Your task to perform on an android device: Do I have any events this weekend? Image 0: 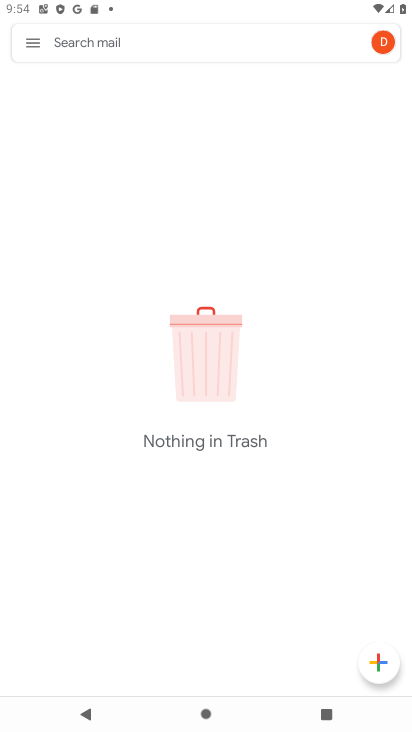
Step 0: press home button
Your task to perform on an android device: Do I have any events this weekend? Image 1: 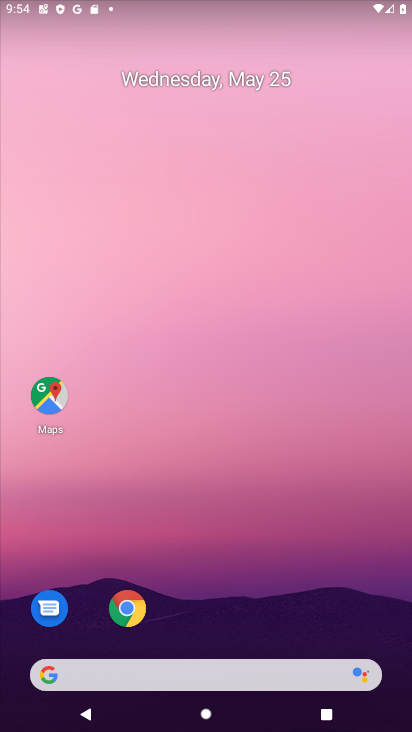
Step 1: drag from (241, 644) to (266, 8)
Your task to perform on an android device: Do I have any events this weekend? Image 2: 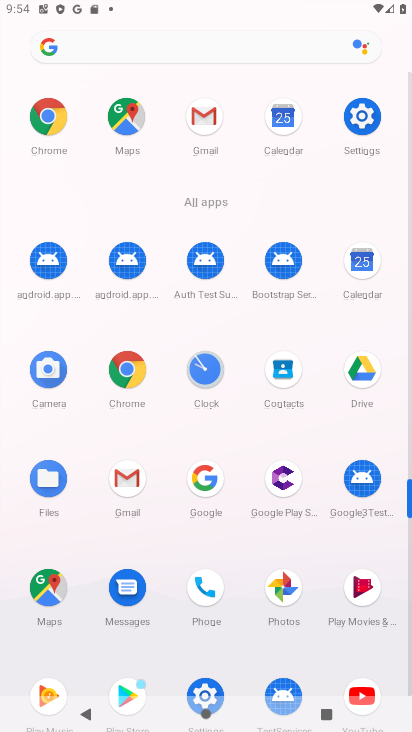
Step 2: click (285, 118)
Your task to perform on an android device: Do I have any events this weekend? Image 3: 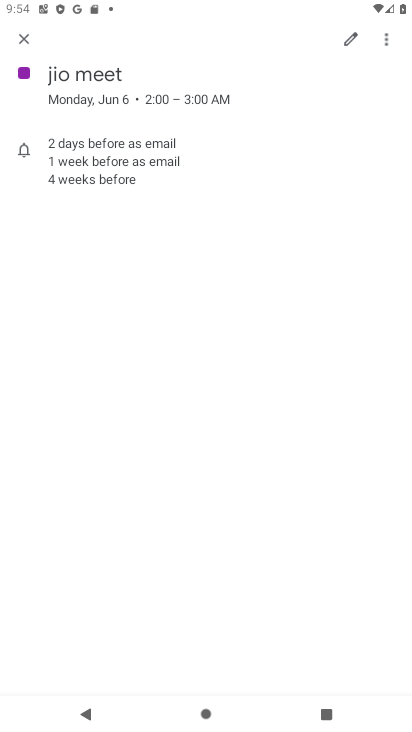
Step 3: click (23, 44)
Your task to perform on an android device: Do I have any events this weekend? Image 4: 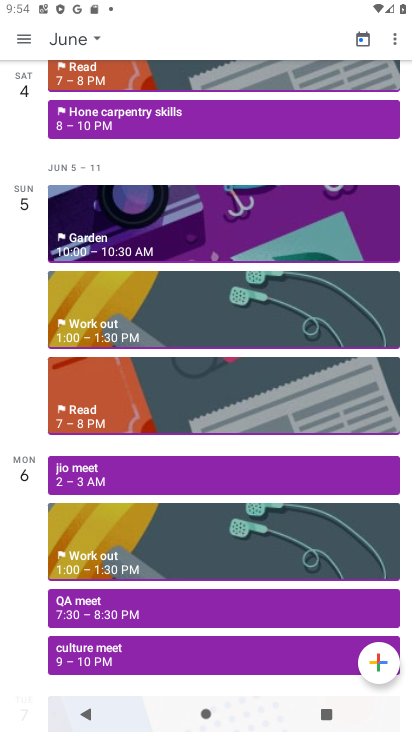
Step 4: click (356, 40)
Your task to perform on an android device: Do I have any events this weekend? Image 5: 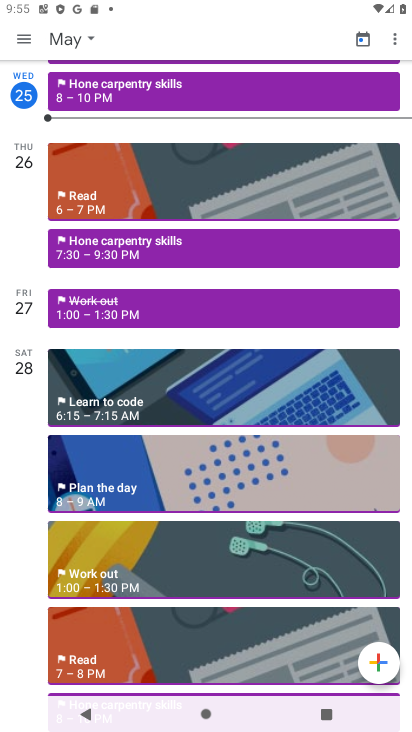
Step 5: click (23, 38)
Your task to perform on an android device: Do I have any events this weekend? Image 6: 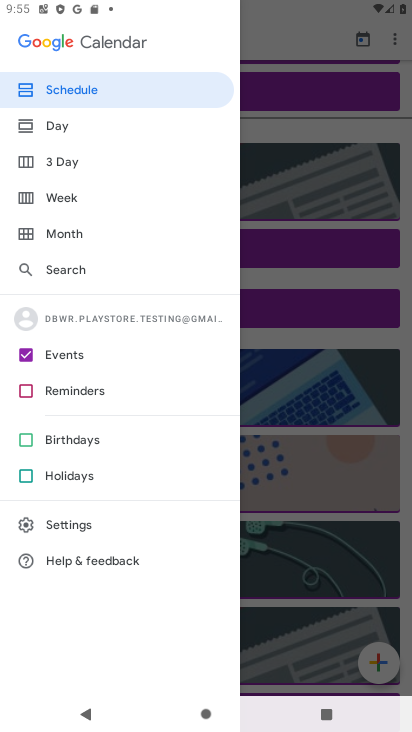
Step 6: click (55, 128)
Your task to perform on an android device: Do I have any events this weekend? Image 7: 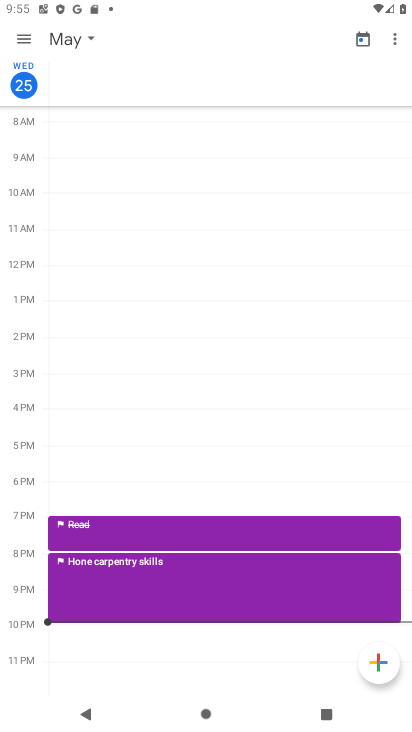
Step 7: click (86, 37)
Your task to perform on an android device: Do I have any events this weekend? Image 8: 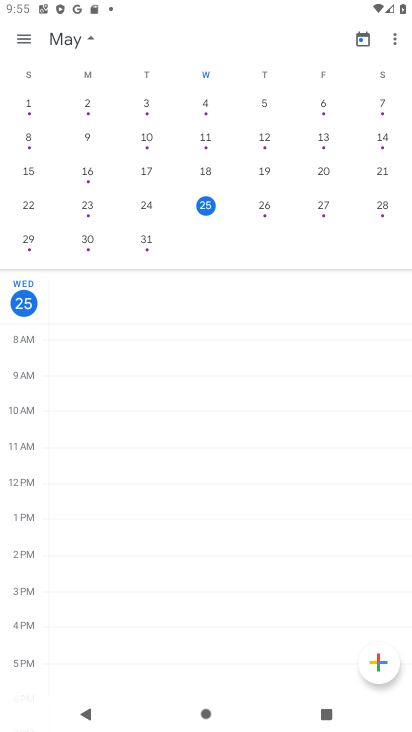
Step 8: click (383, 207)
Your task to perform on an android device: Do I have any events this weekend? Image 9: 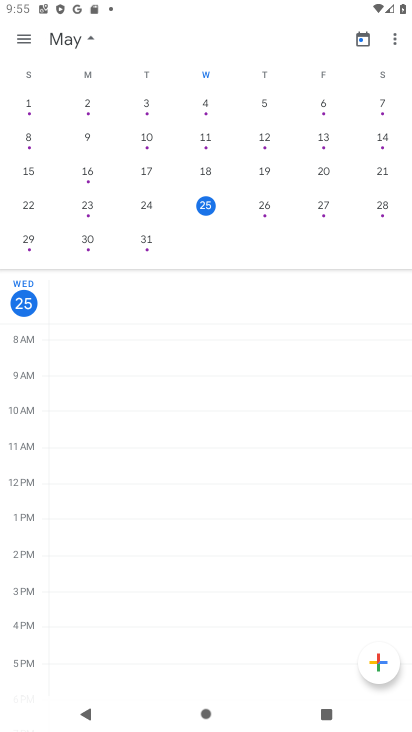
Step 9: click (383, 203)
Your task to perform on an android device: Do I have any events this weekend? Image 10: 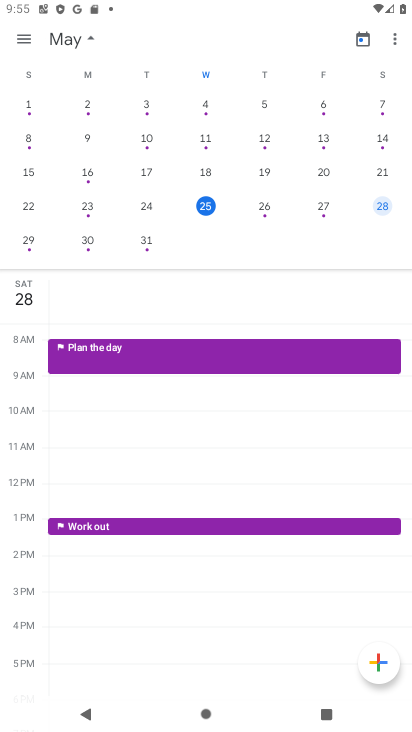
Step 10: task complete